Your task to perform on an android device: check google app version Image 0: 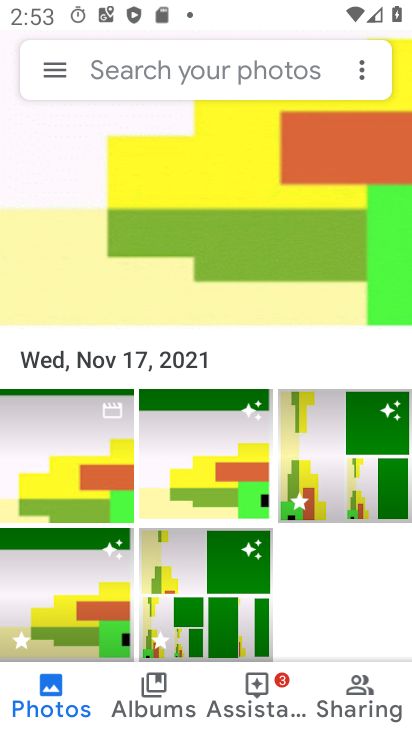
Step 0: press back button
Your task to perform on an android device: check google app version Image 1: 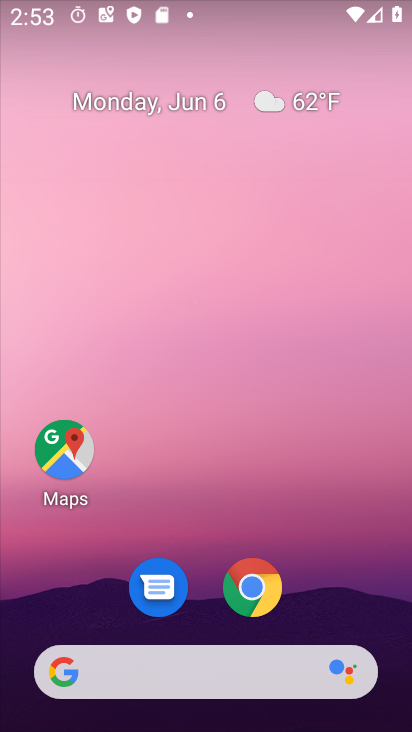
Step 1: drag from (290, 552) to (234, 142)
Your task to perform on an android device: check google app version Image 2: 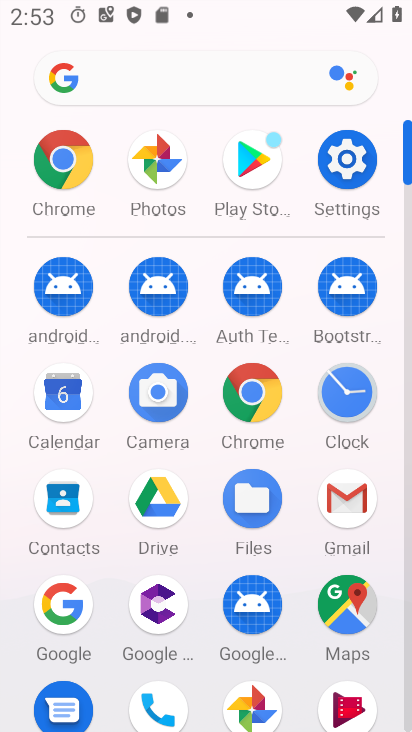
Step 2: click (64, 605)
Your task to perform on an android device: check google app version Image 3: 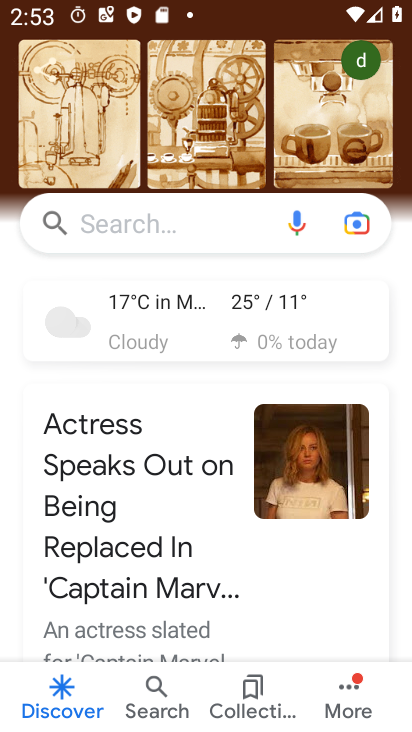
Step 3: click (350, 690)
Your task to perform on an android device: check google app version Image 4: 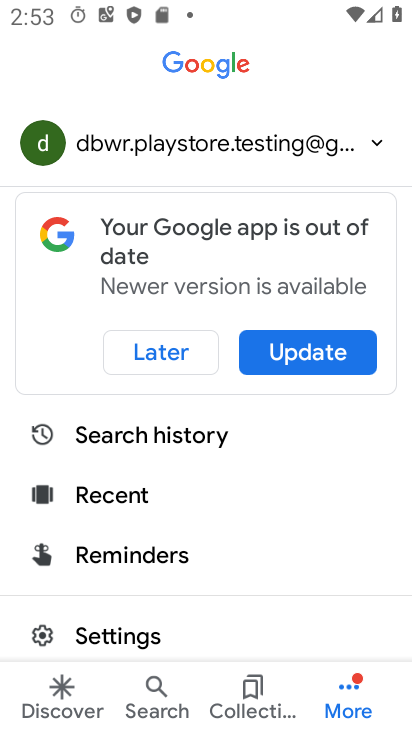
Step 4: drag from (276, 544) to (240, 168)
Your task to perform on an android device: check google app version Image 5: 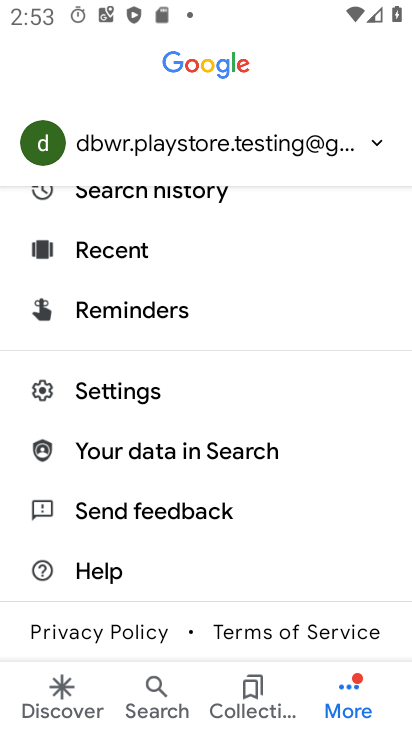
Step 5: click (135, 396)
Your task to perform on an android device: check google app version Image 6: 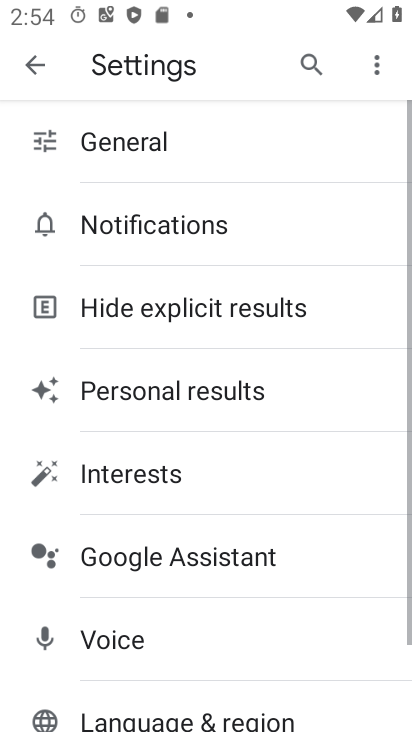
Step 6: drag from (161, 662) to (239, 258)
Your task to perform on an android device: check google app version Image 7: 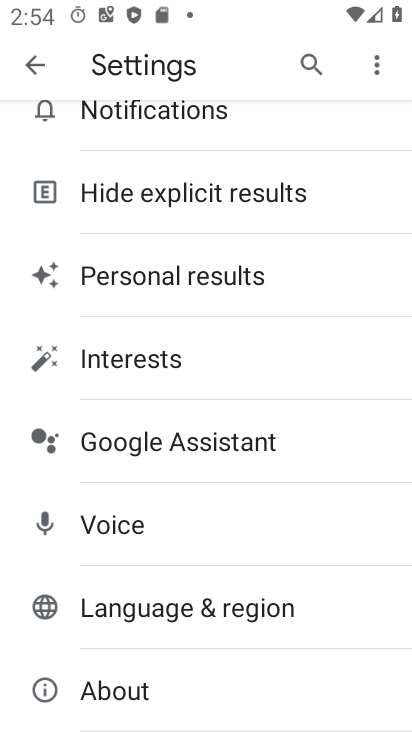
Step 7: click (201, 683)
Your task to perform on an android device: check google app version Image 8: 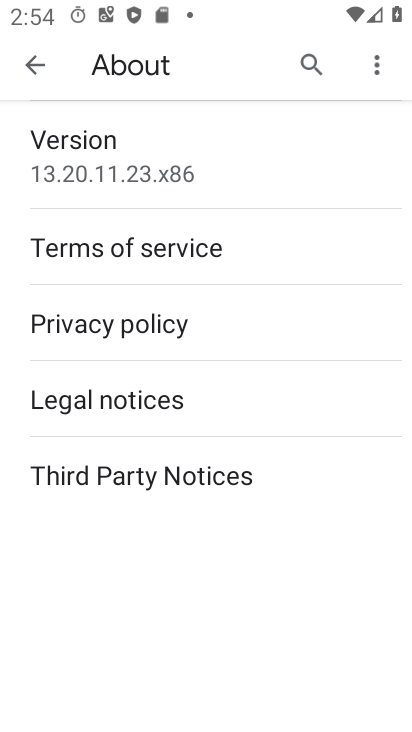
Step 8: task complete